Your task to perform on an android device: Go to Wikipedia Image 0: 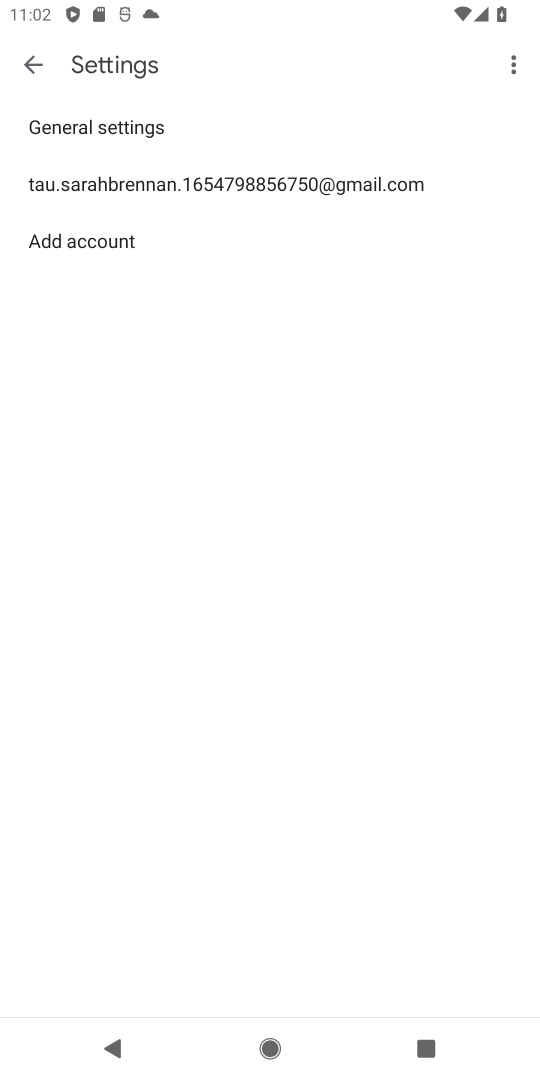
Step 0: press home button
Your task to perform on an android device: Go to Wikipedia Image 1: 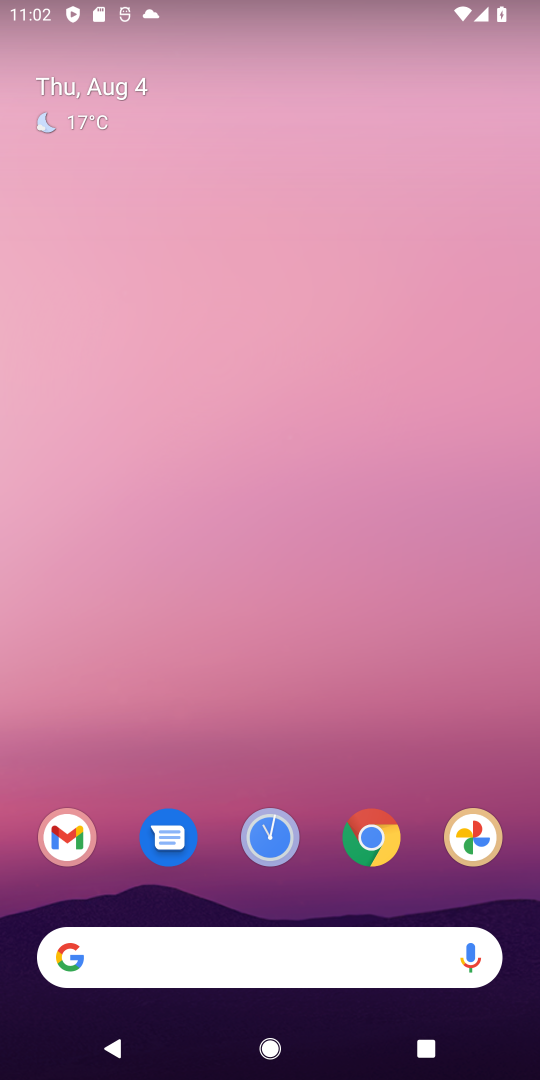
Step 1: drag from (405, 834) to (79, 12)
Your task to perform on an android device: Go to Wikipedia Image 2: 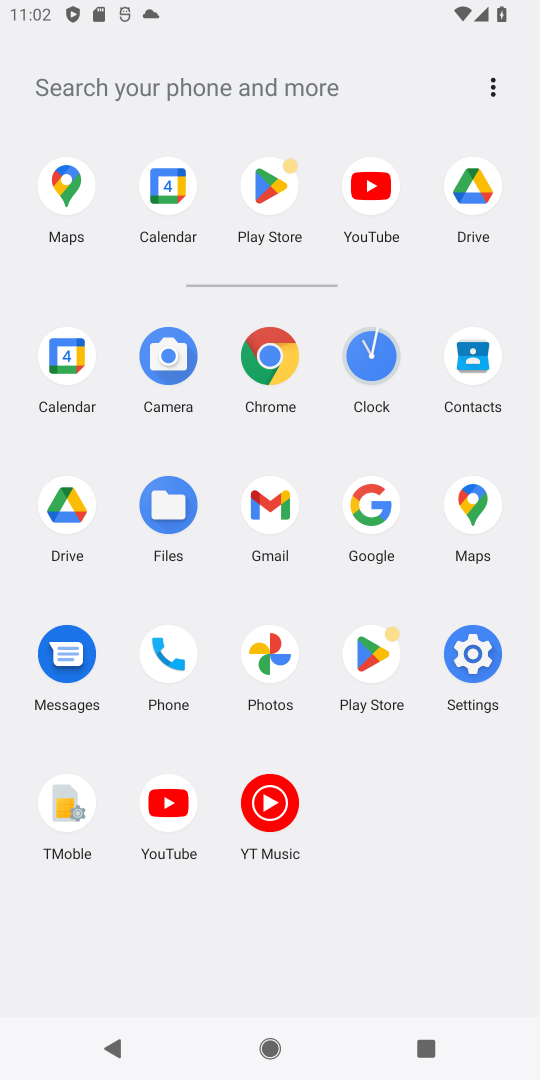
Step 2: click (358, 508)
Your task to perform on an android device: Go to Wikipedia Image 3: 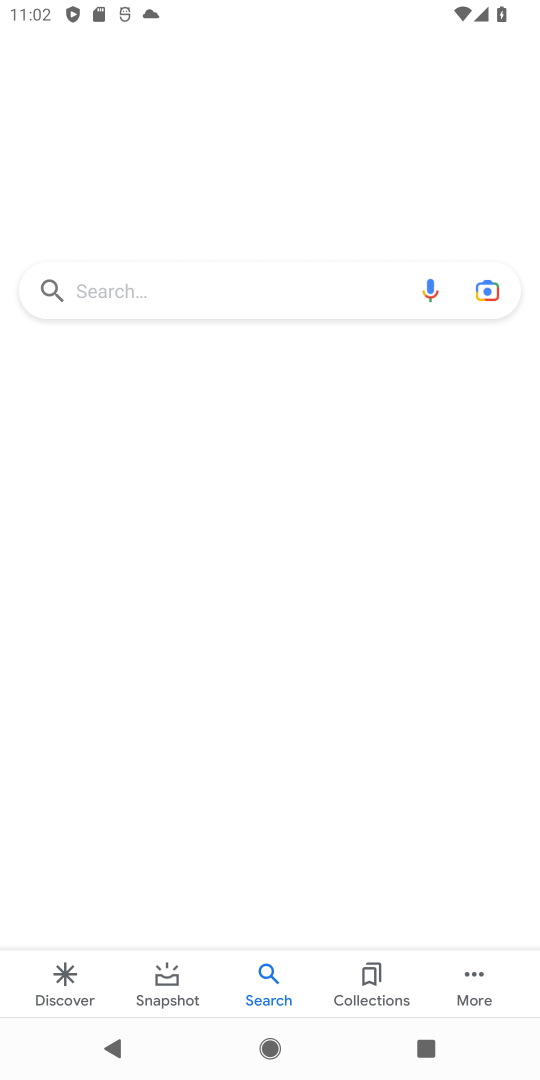
Step 3: click (161, 298)
Your task to perform on an android device: Go to Wikipedia Image 4: 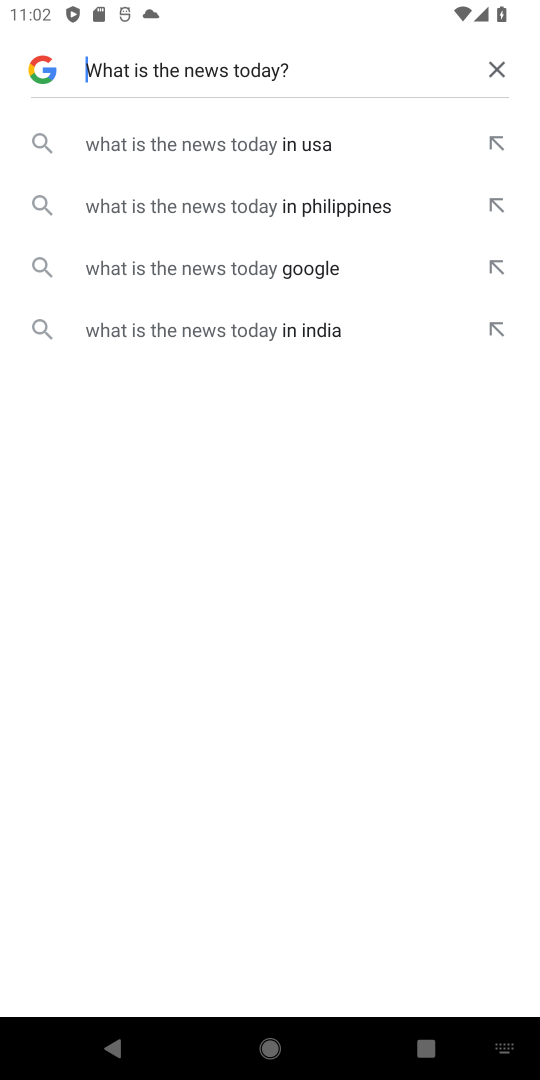
Step 4: click (491, 68)
Your task to perform on an android device: Go to Wikipedia Image 5: 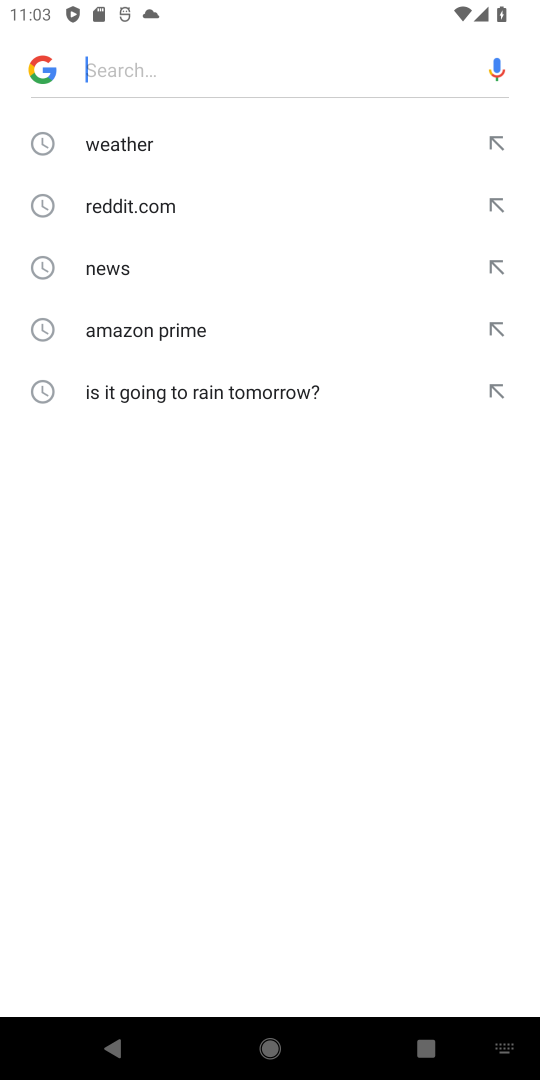
Step 5: type " Wikipedia"
Your task to perform on an android device: Go to Wikipedia Image 6: 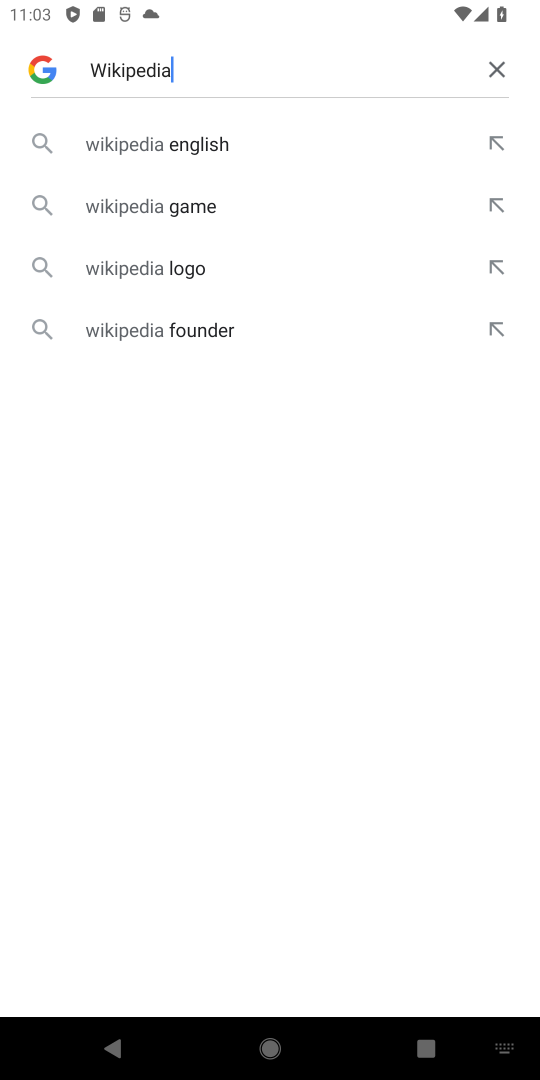
Step 6: task complete